Your task to perform on an android device: What's on my calendar tomorrow? Image 0: 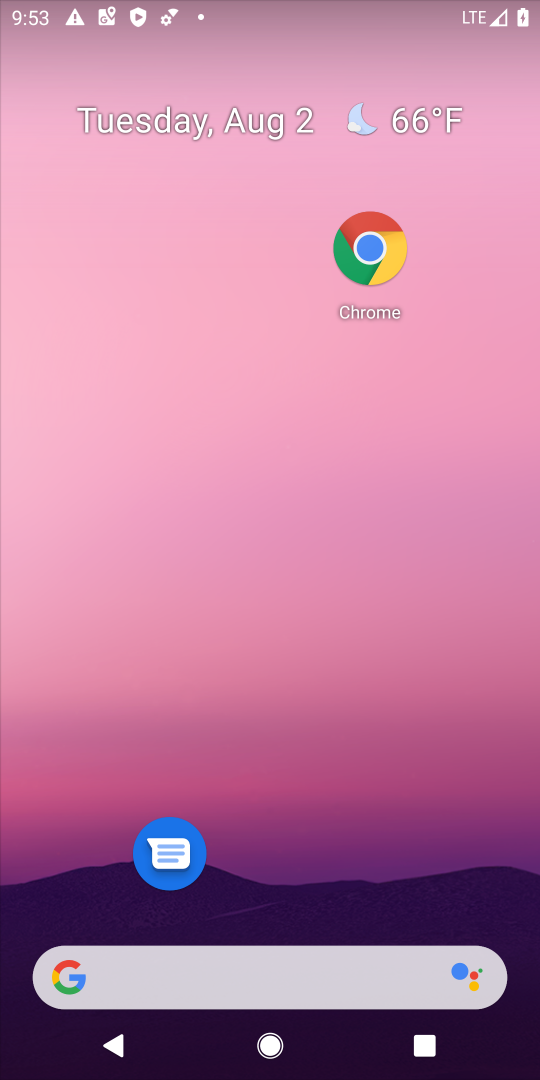
Step 0: drag from (314, 898) to (424, 33)
Your task to perform on an android device: What's on my calendar tomorrow? Image 1: 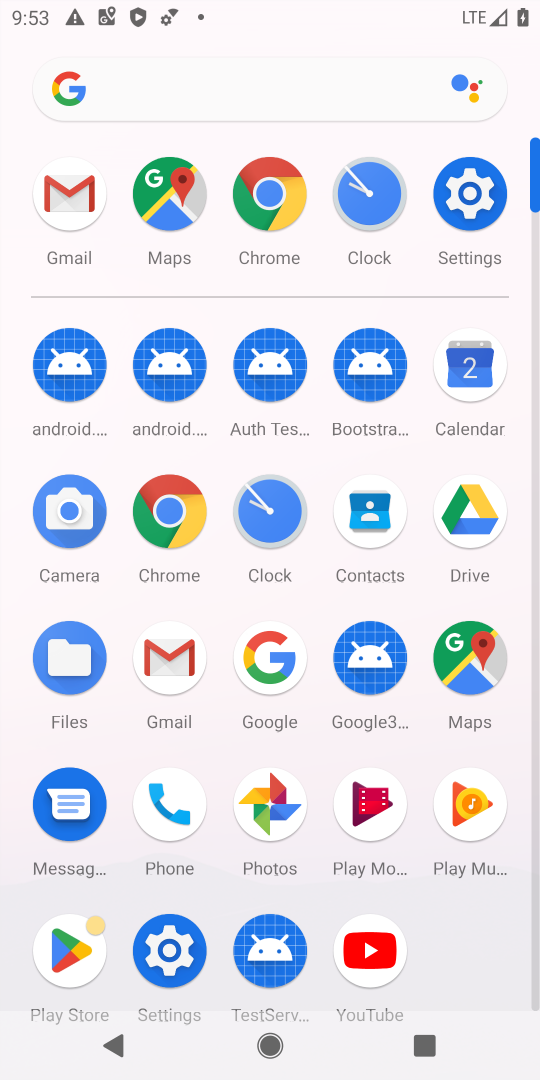
Step 1: click (469, 390)
Your task to perform on an android device: What's on my calendar tomorrow? Image 2: 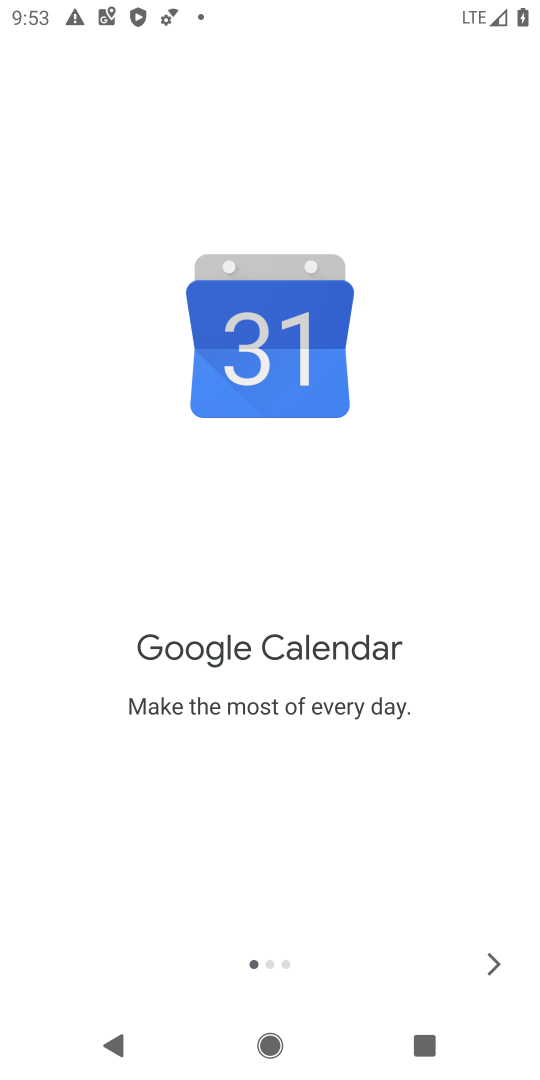
Step 2: click (484, 980)
Your task to perform on an android device: What's on my calendar tomorrow? Image 3: 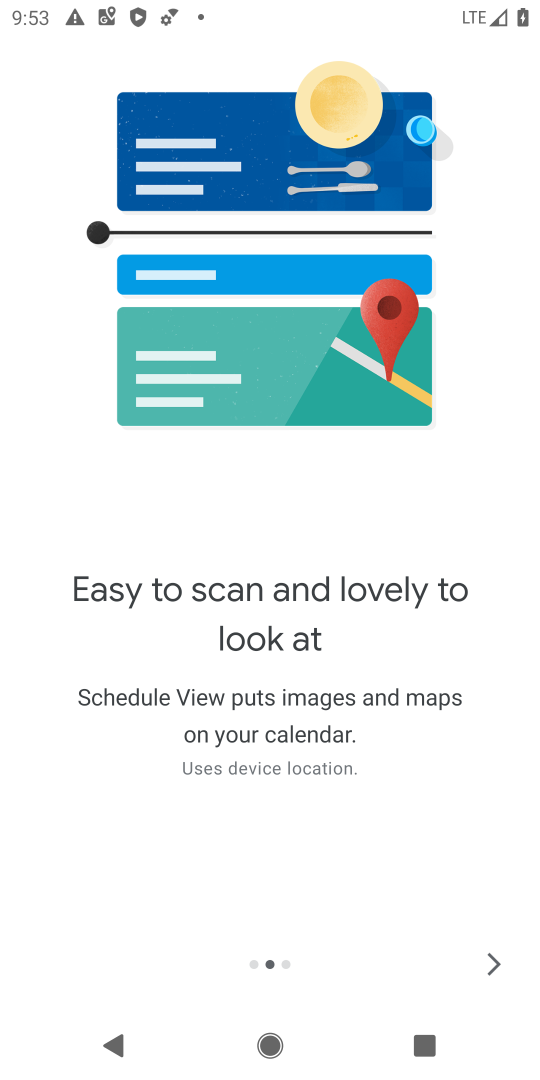
Step 3: click (483, 975)
Your task to perform on an android device: What's on my calendar tomorrow? Image 4: 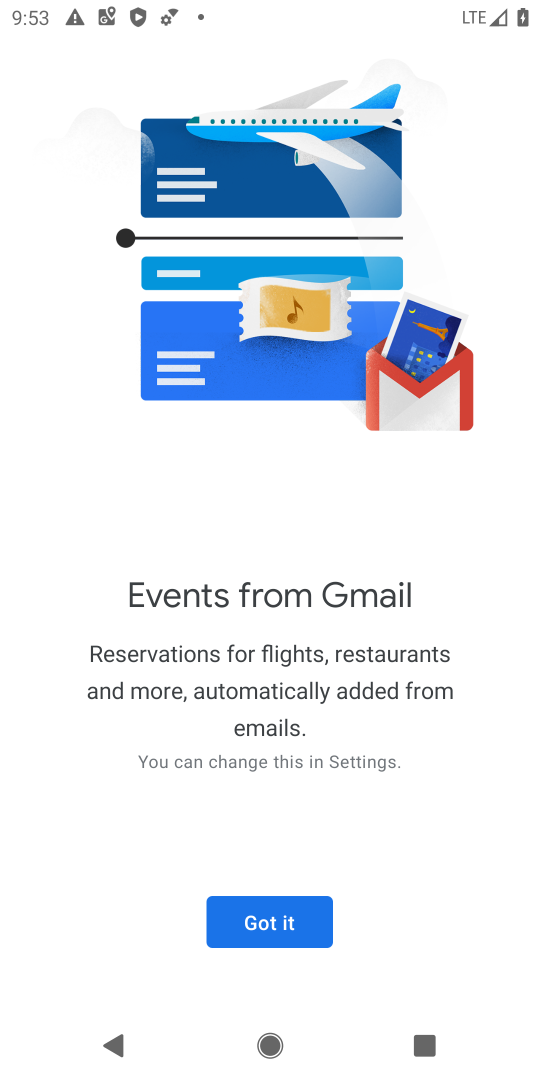
Step 4: click (293, 893)
Your task to perform on an android device: What's on my calendar tomorrow? Image 5: 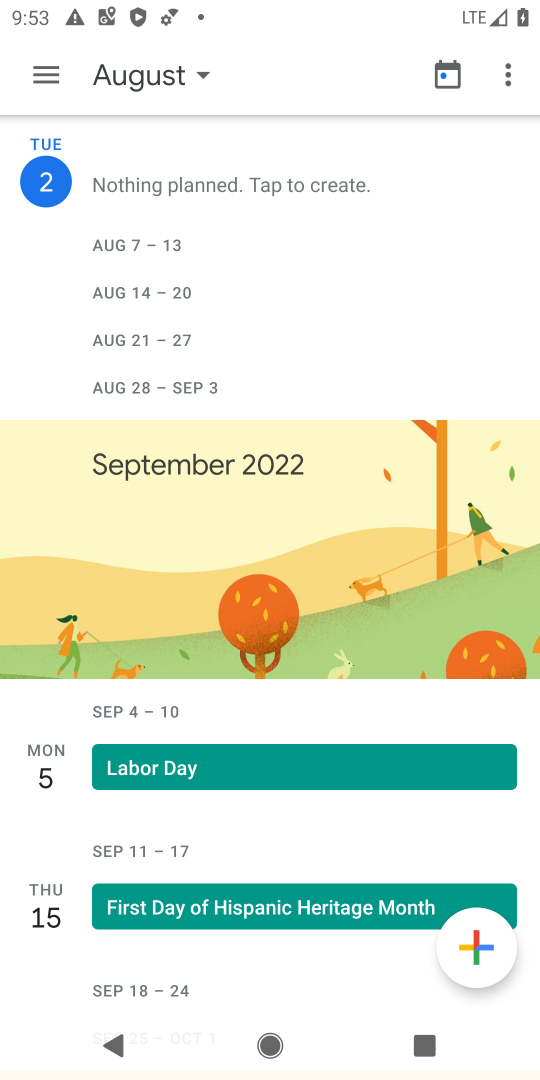
Step 5: click (46, 72)
Your task to perform on an android device: What's on my calendar tomorrow? Image 6: 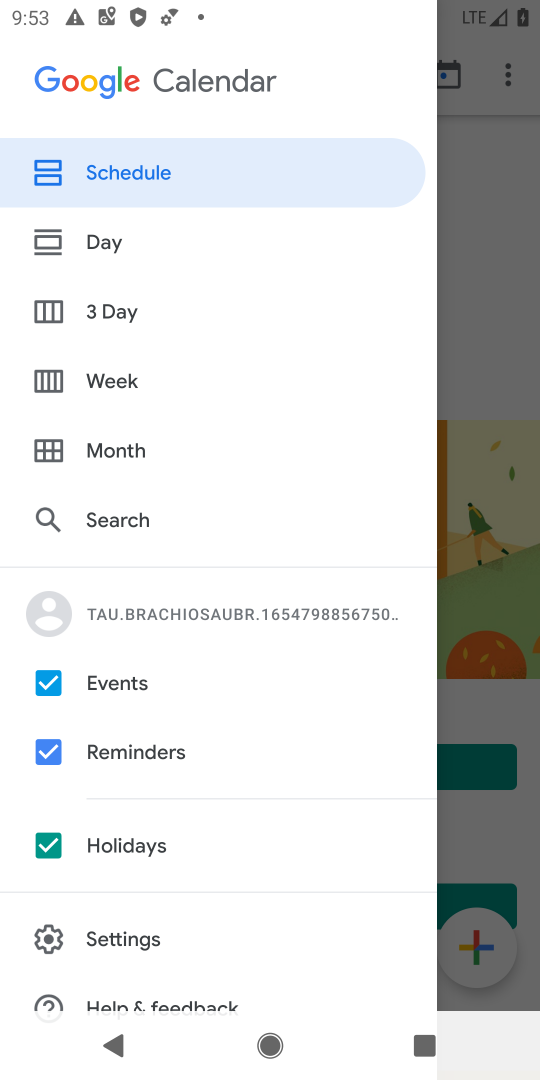
Step 6: click (114, 376)
Your task to perform on an android device: What's on my calendar tomorrow? Image 7: 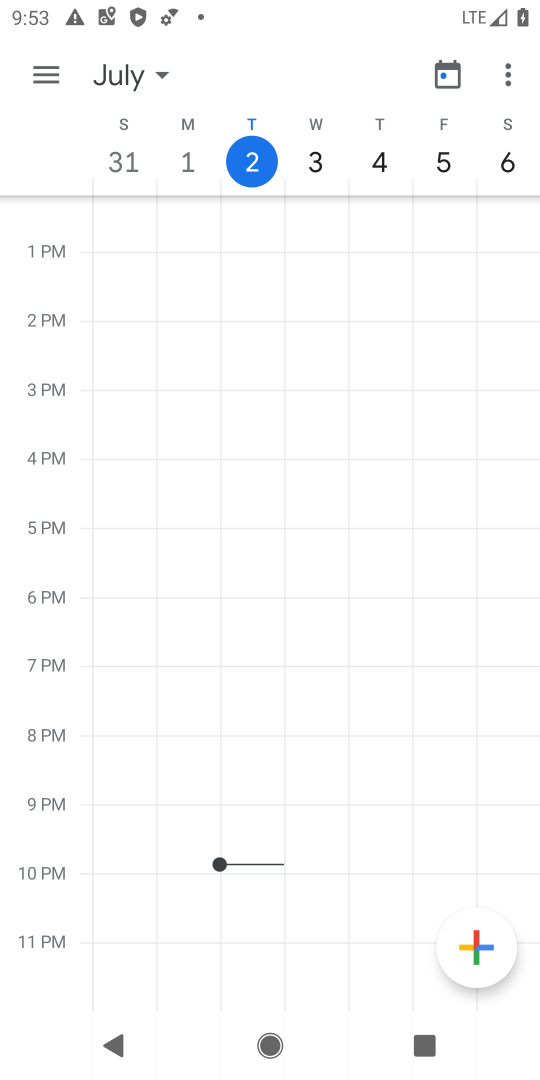
Step 7: click (323, 175)
Your task to perform on an android device: What's on my calendar tomorrow? Image 8: 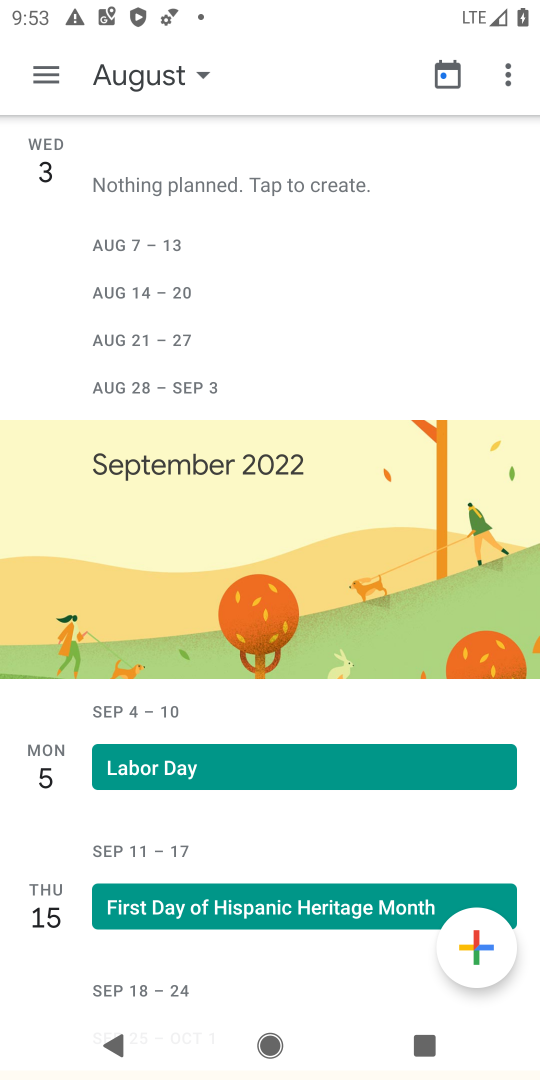
Step 8: task complete